Your task to perform on an android device: Open Google Maps Image 0: 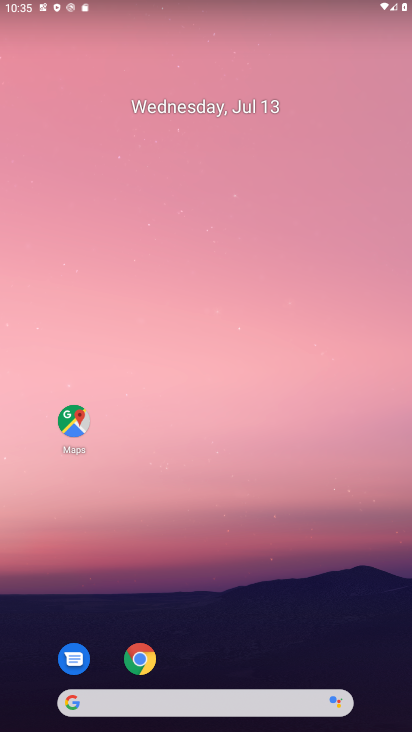
Step 0: drag from (254, 721) to (175, 252)
Your task to perform on an android device: Open Google Maps Image 1: 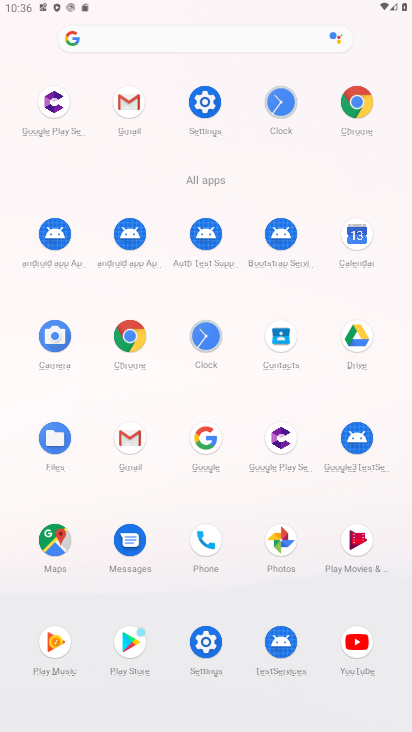
Step 1: click (60, 542)
Your task to perform on an android device: Open Google Maps Image 2: 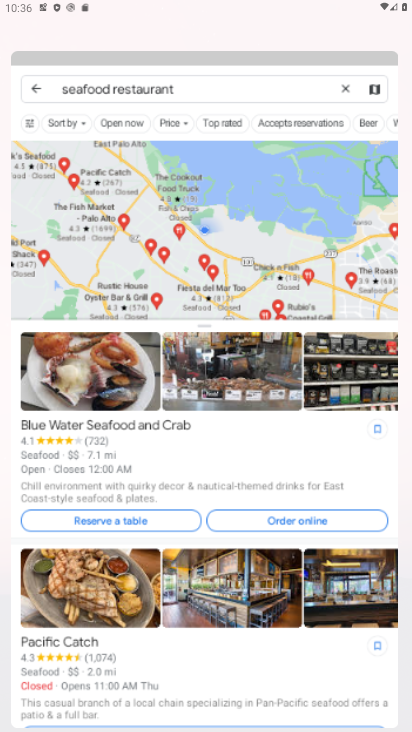
Step 2: click (53, 535)
Your task to perform on an android device: Open Google Maps Image 3: 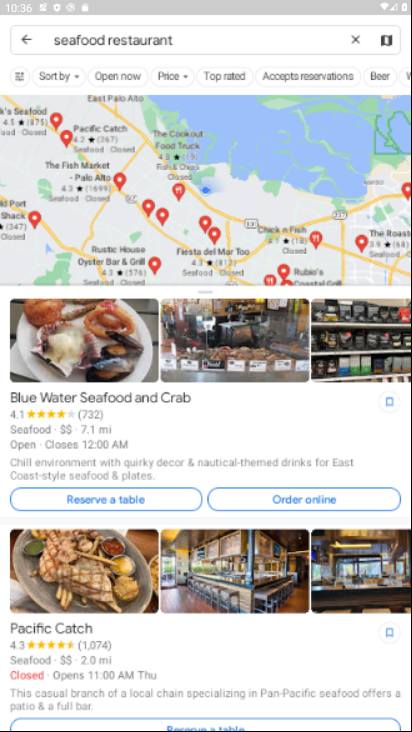
Step 3: click (57, 526)
Your task to perform on an android device: Open Google Maps Image 4: 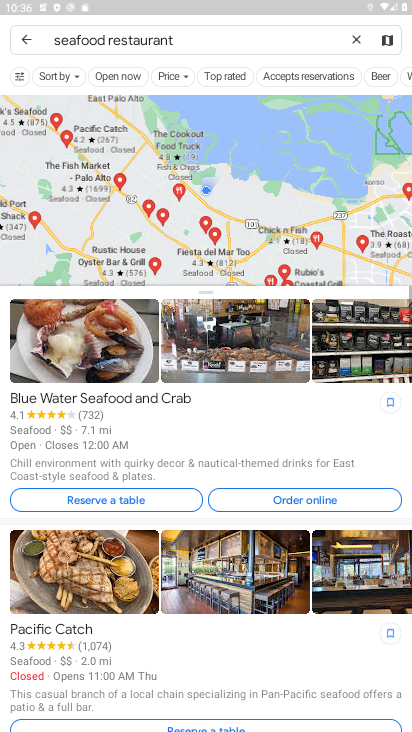
Step 4: task complete